Your task to perform on an android device: open the mobile data screen to see how much data has been used Image 0: 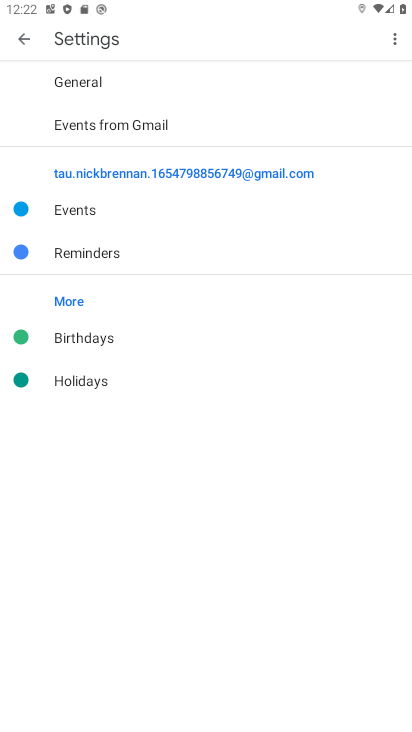
Step 0: press home button
Your task to perform on an android device: open the mobile data screen to see how much data has been used Image 1: 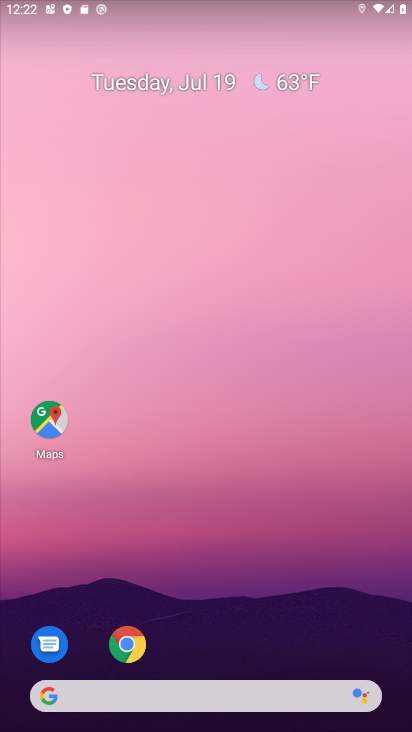
Step 1: drag from (260, 725) to (262, 349)
Your task to perform on an android device: open the mobile data screen to see how much data has been used Image 2: 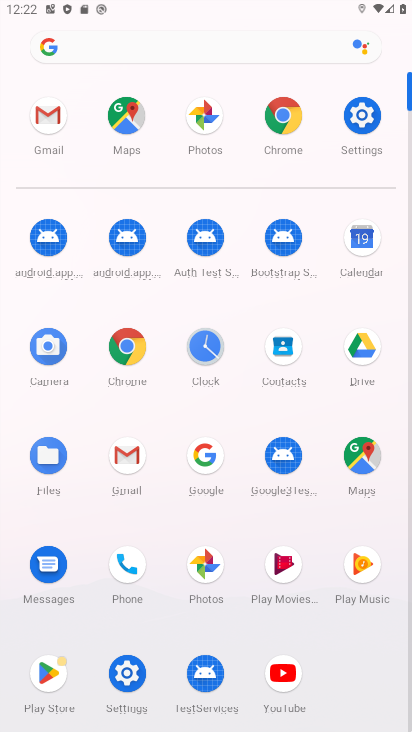
Step 2: click (372, 114)
Your task to perform on an android device: open the mobile data screen to see how much data has been used Image 3: 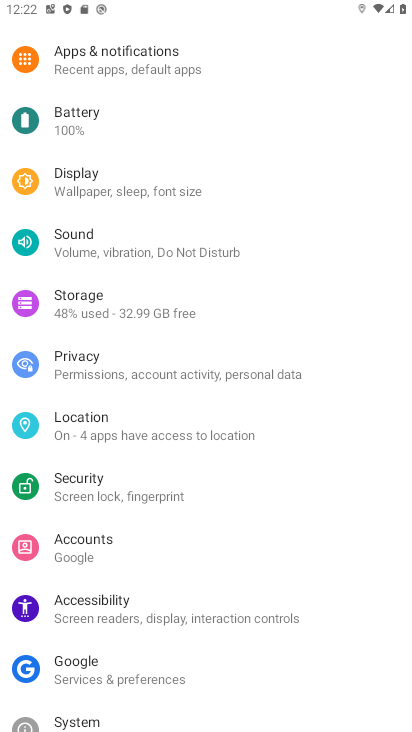
Step 3: drag from (94, 89) to (123, 523)
Your task to perform on an android device: open the mobile data screen to see how much data has been used Image 4: 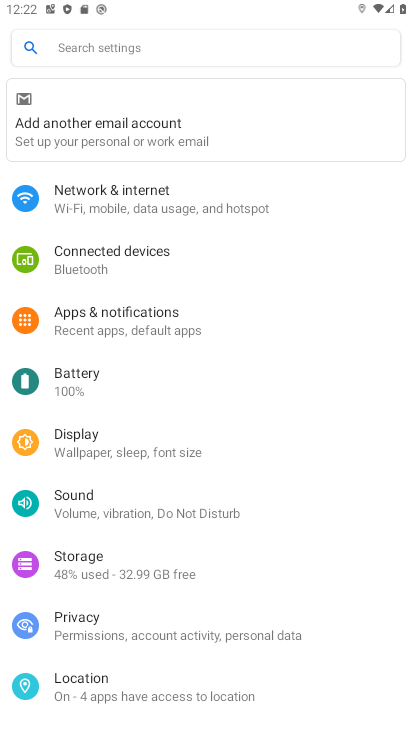
Step 4: click (128, 201)
Your task to perform on an android device: open the mobile data screen to see how much data has been used Image 5: 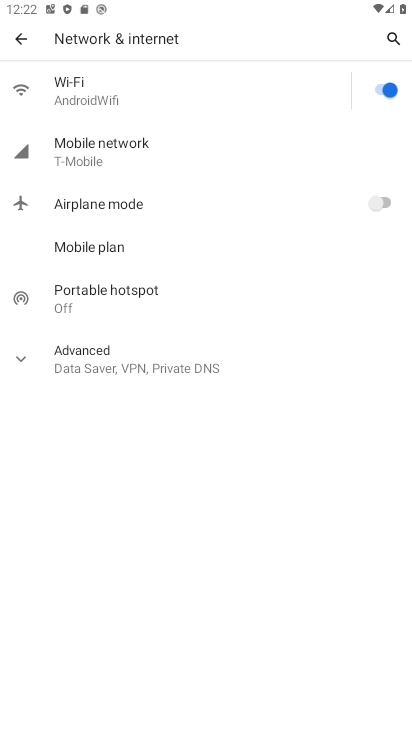
Step 5: click (101, 150)
Your task to perform on an android device: open the mobile data screen to see how much data has been used Image 6: 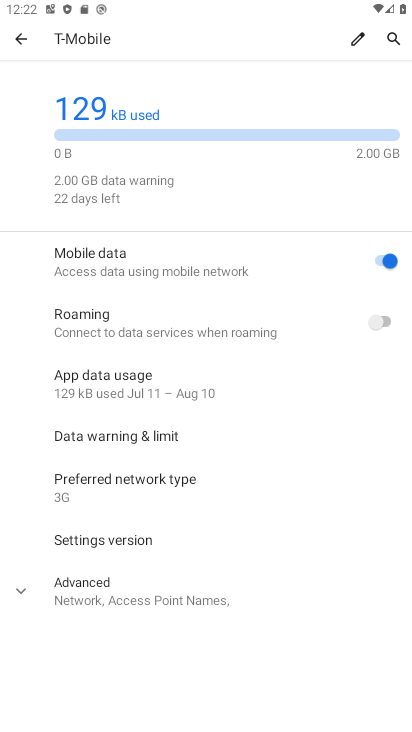
Step 6: click (108, 383)
Your task to perform on an android device: open the mobile data screen to see how much data has been used Image 7: 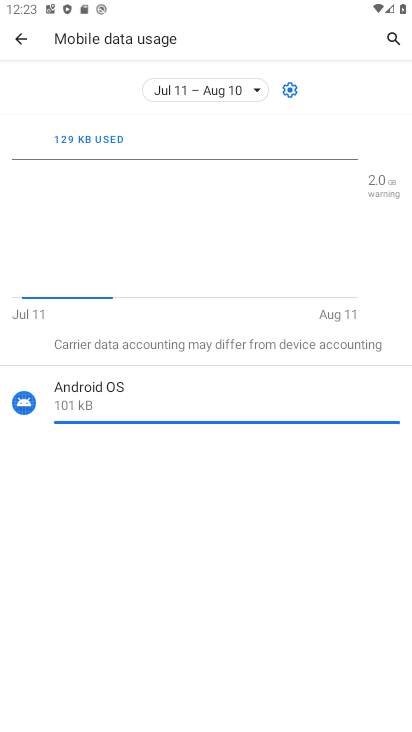
Step 7: task complete